Your task to perform on an android device: What's on my calendar tomorrow? Image 0: 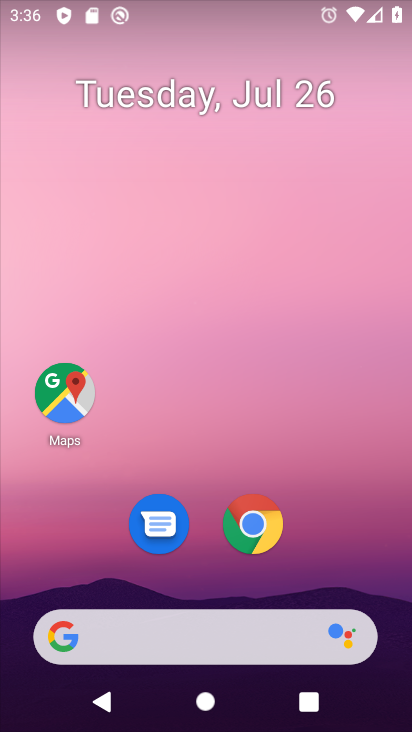
Step 0: drag from (340, 526) to (272, 20)
Your task to perform on an android device: What's on my calendar tomorrow? Image 1: 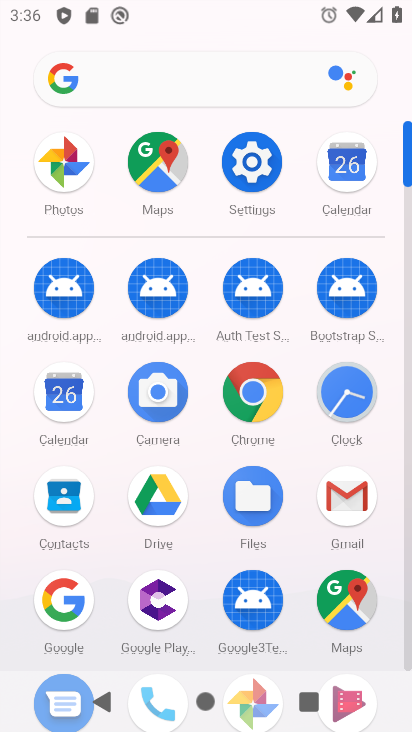
Step 1: click (352, 172)
Your task to perform on an android device: What's on my calendar tomorrow? Image 2: 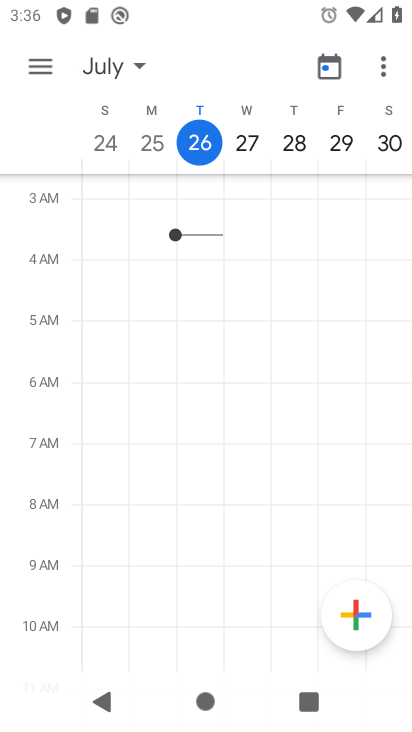
Step 2: task complete